Your task to perform on an android device: change your default location settings in chrome Image 0: 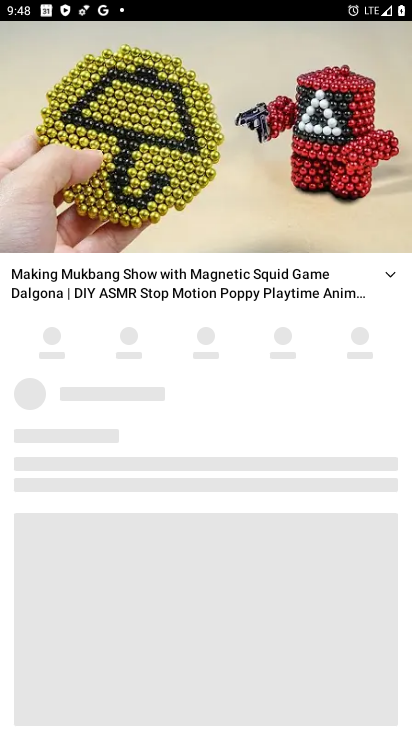
Step 0: press back button
Your task to perform on an android device: change your default location settings in chrome Image 1: 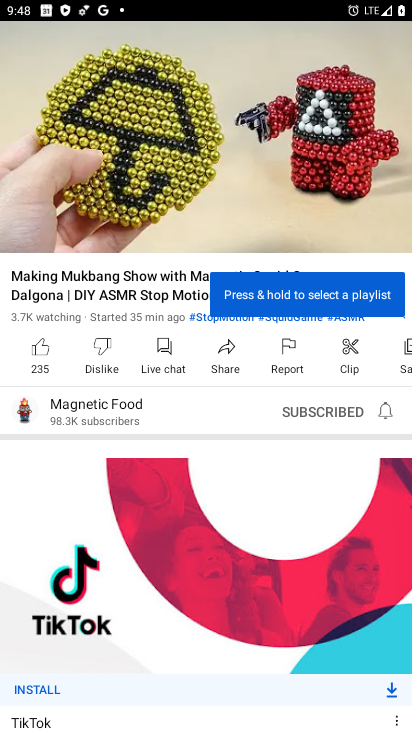
Step 1: press back button
Your task to perform on an android device: change your default location settings in chrome Image 2: 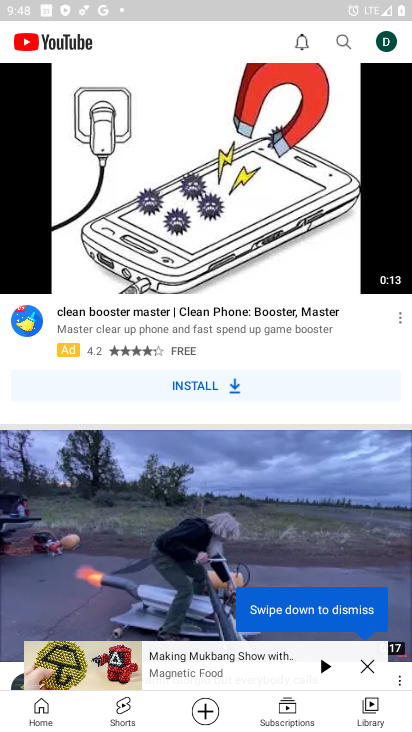
Step 2: press back button
Your task to perform on an android device: change your default location settings in chrome Image 3: 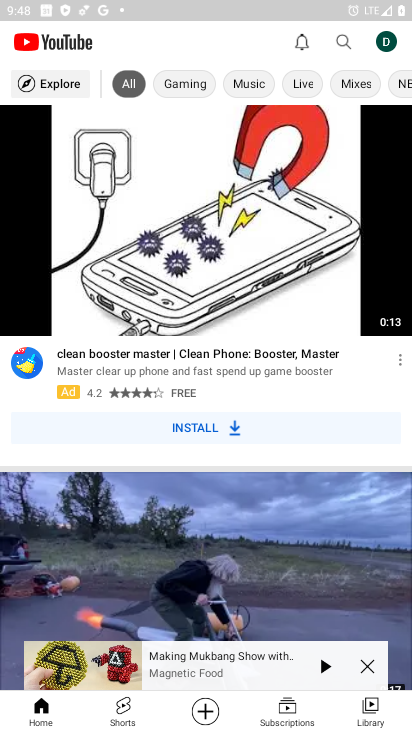
Step 3: press back button
Your task to perform on an android device: change your default location settings in chrome Image 4: 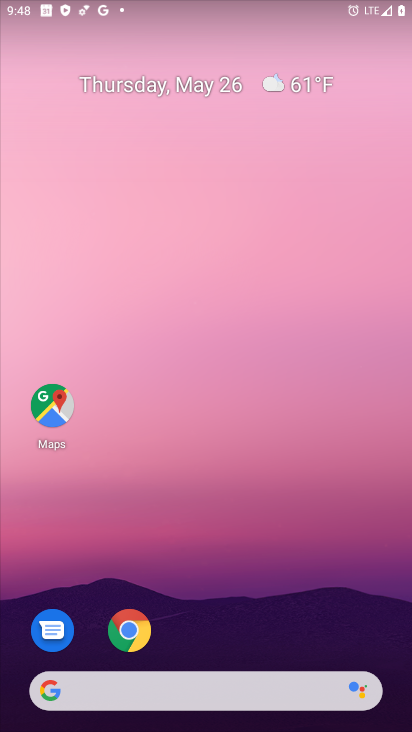
Step 4: click (142, 628)
Your task to perform on an android device: change your default location settings in chrome Image 5: 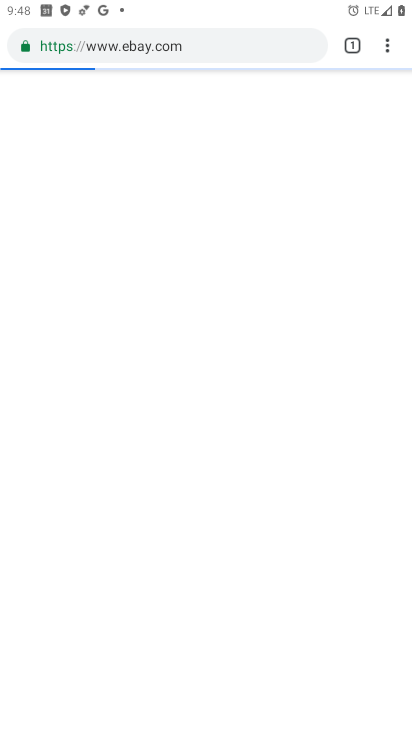
Step 5: click (392, 51)
Your task to perform on an android device: change your default location settings in chrome Image 6: 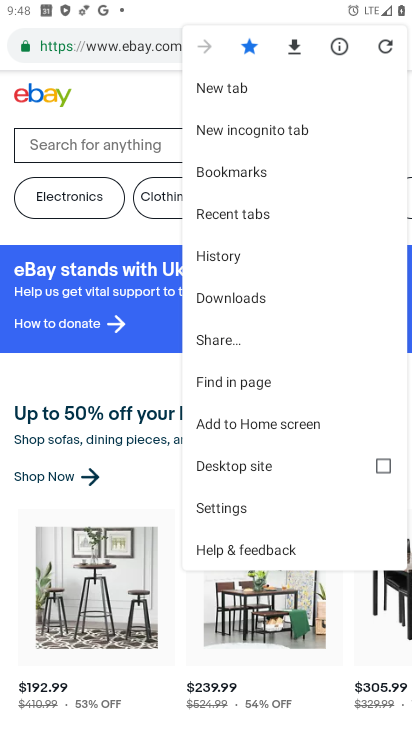
Step 6: click (226, 515)
Your task to perform on an android device: change your default location settings in chrome Image 7: 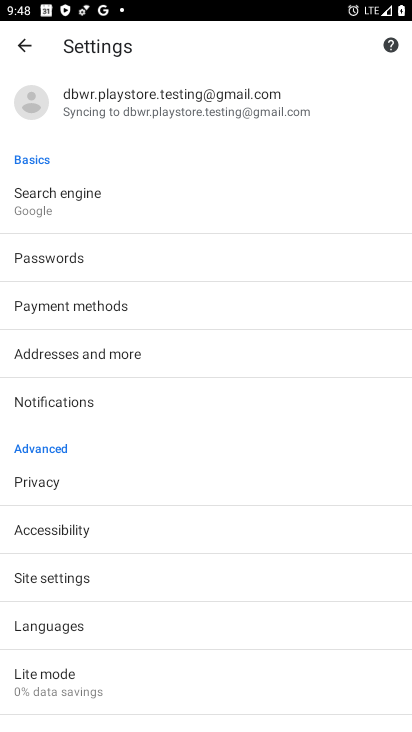
Step 7: click (58, 573)
Your task to perform on an android device: change your default location settings in chrome Image 8: 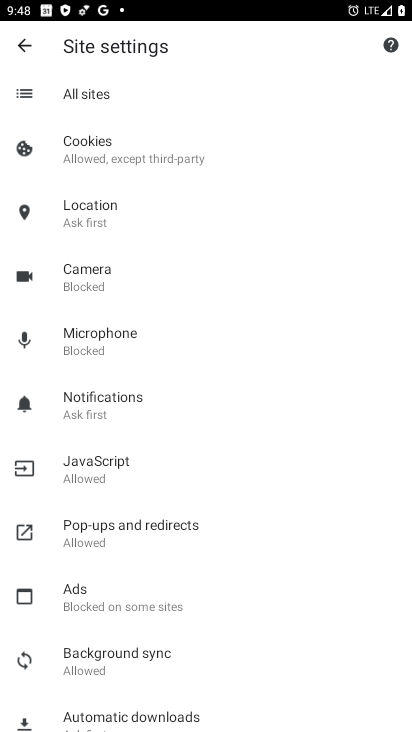
Step 8: click (71, 218)
Your task to perform on an android device: change your default location settings in chrome Image 9: 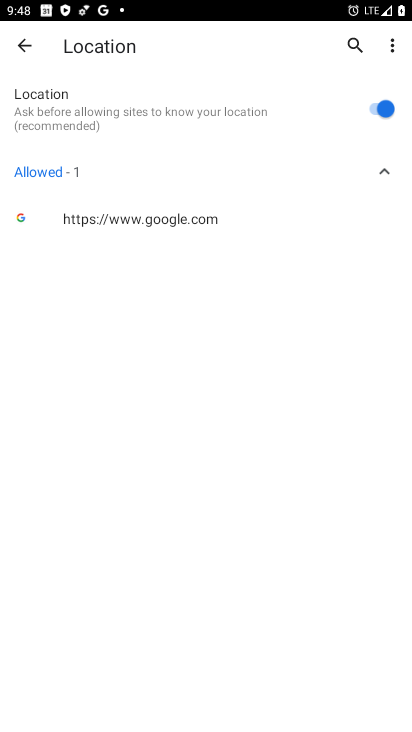
Step 9: click (384, 101)
Your task to perform on an android device: change your default location settings in chrome Image 10: 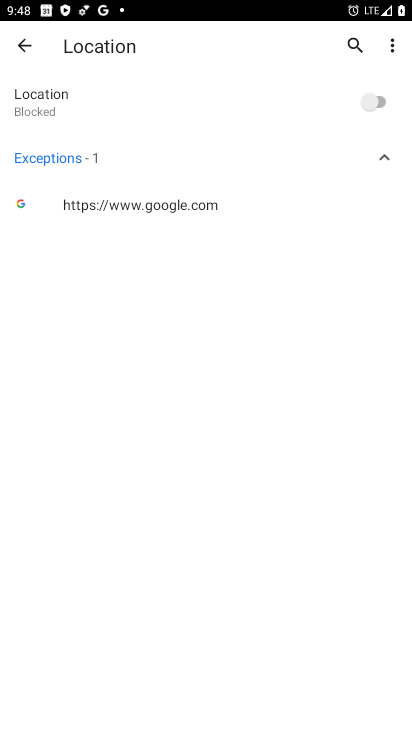
Step 10: task complete